Your task to perform on an android device: check out phone information Image 0: 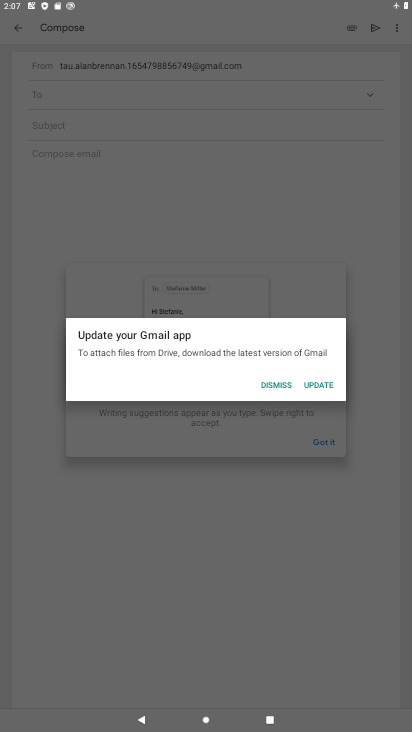
Step 0: press home button
Your task to perform on an android device: check out phone information Image 1: 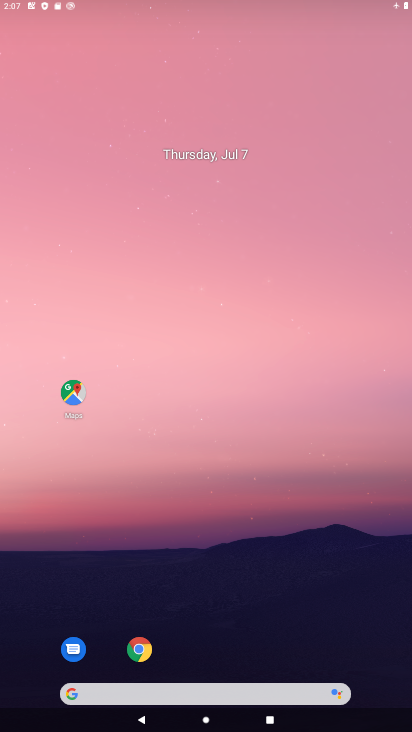
Step 1: drag from (301, 701) to (250, 118)
Your task to perform on an android device: check out phone information Image 2: 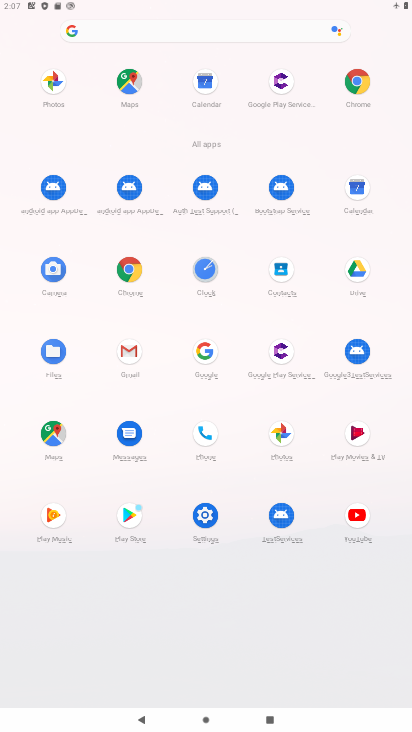
Step 2: click (212, 524)
Your task to perform on an android device: check out phone information Image 3: 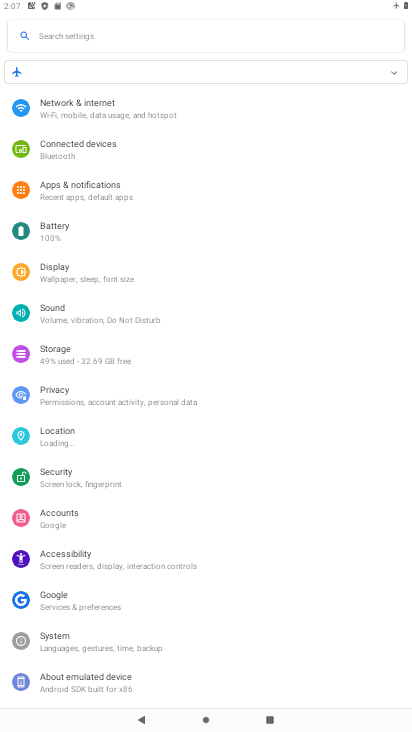
Step 3: drag from (213, 658) to (224, 241)
Your task to perform on an android device: check out phone information Image 4: 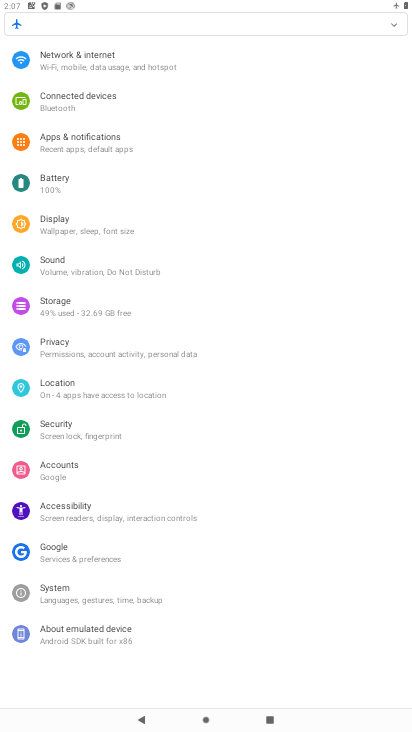
Step 4: click (117, 637)
Your task to perform on an android device: check out phone information Image 5: 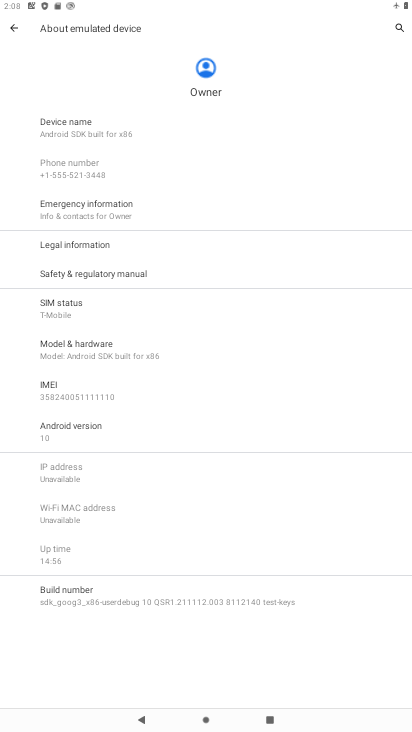
Step 5: click (123, 448)
Your task to perform on an android device: check out phone information Image 6: 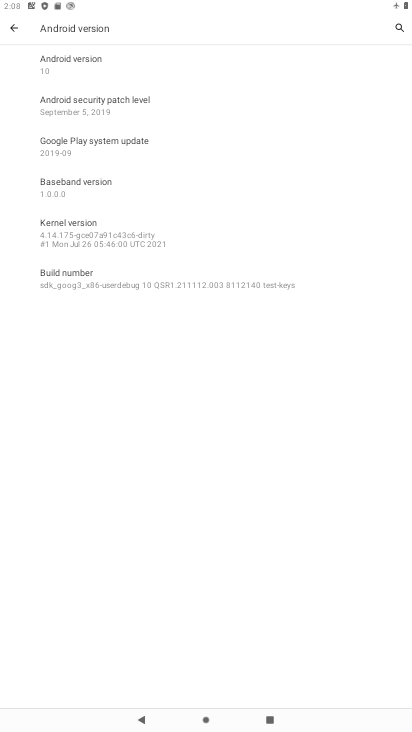
Step 6: task complete